Your task to perform on an android device: turn off location Image 0: 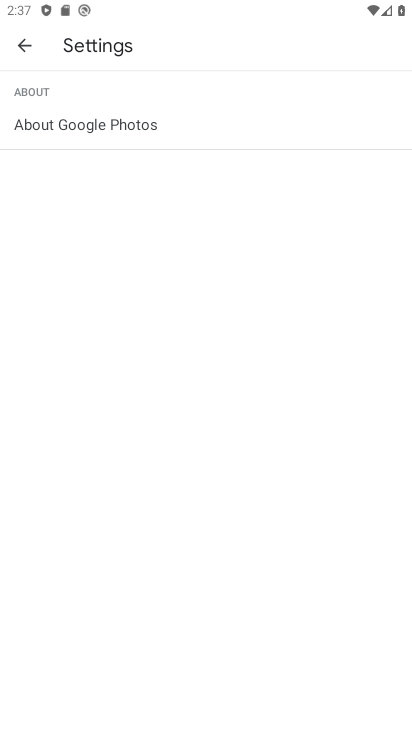
Step 0: press home button
Your task to perform on an android device: turn off location Image 1: 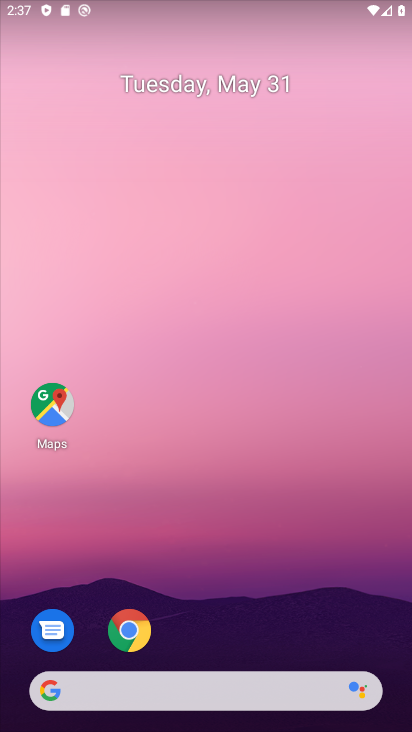
Step 1: drag from (205, 614) to (244, 104)
Your task to perform on an android device: turn off location Image 2: 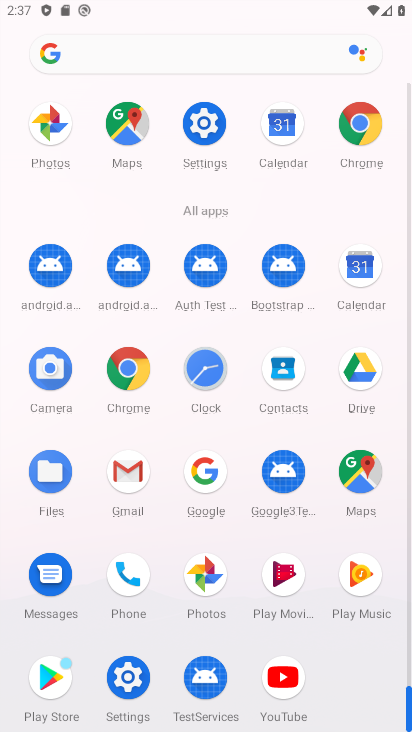
Step 2: click (216, 119)
Your task to perform on an android device: turn off location Image 3: 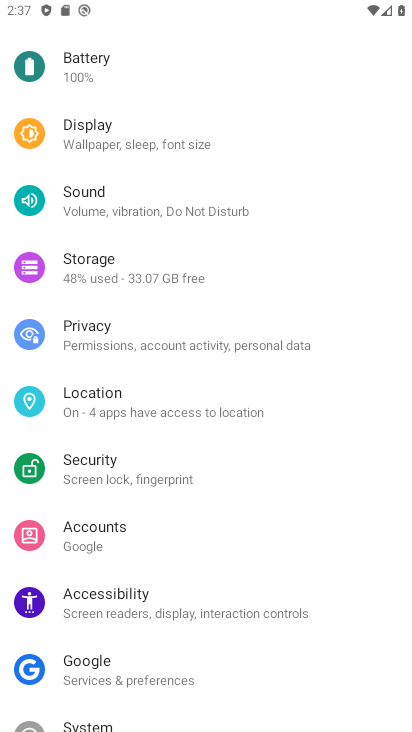
Step 3: drag from (156, 589) to (213, 237)
Your task to perform on an android device: turn off location Image 4: 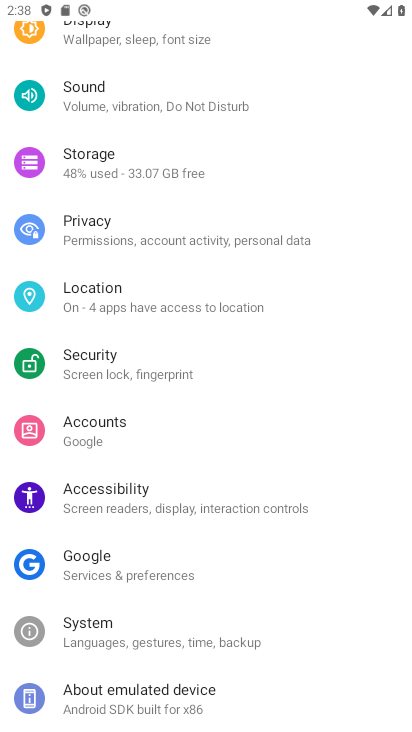
Step 4: click (114, 316)
Your task to perform on an android device: turn off location Image 5: 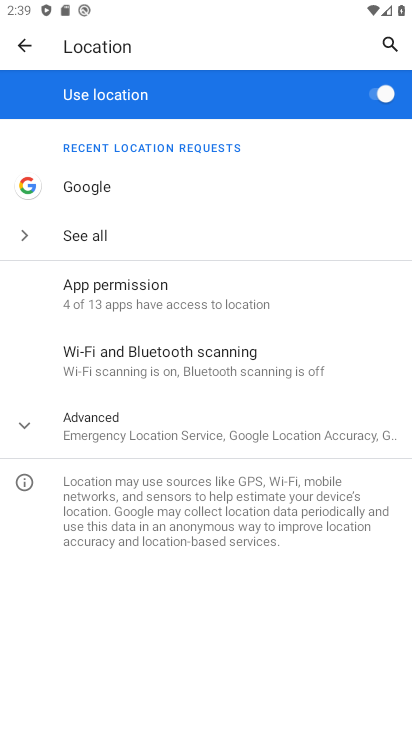
Step 5: click (362, 84)
Your task to perform on an android device: turn off location Image 6: 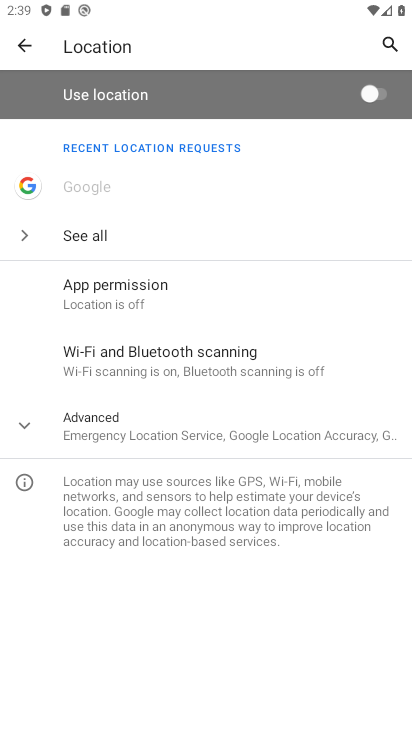
Step 6: task complete